Your task to perform on an android device: open app "Skype" Image 0: 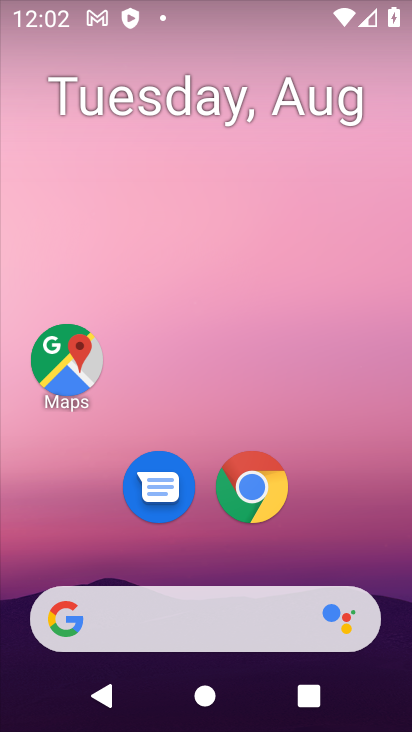
Step 0: drag from (270, 615) to (245, 123)
Your task to perform on an android device: open app "Skype" Image 1: 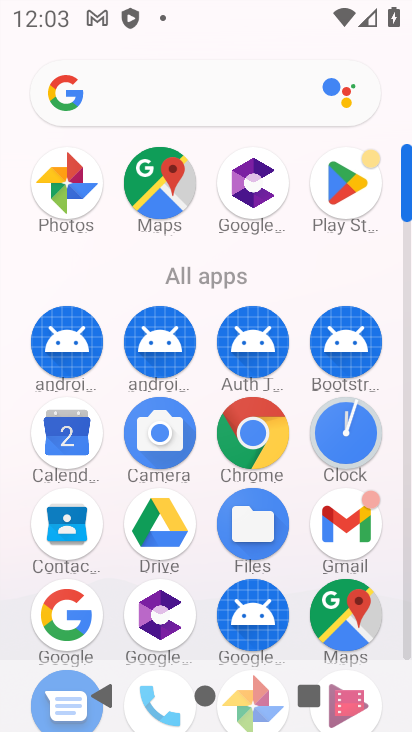
Step 1: click (344, 229)
Your task to perform on an android device: open app "Skype" Image 2: 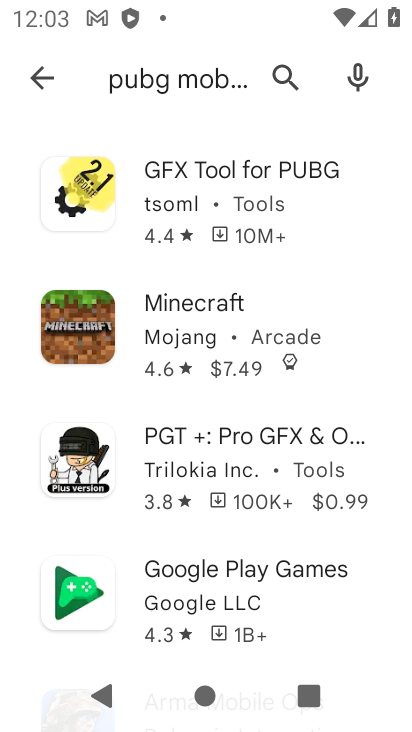
Step 2: click (45, 74)
Your task to perform on an android device: open app "Skype" Image 3: 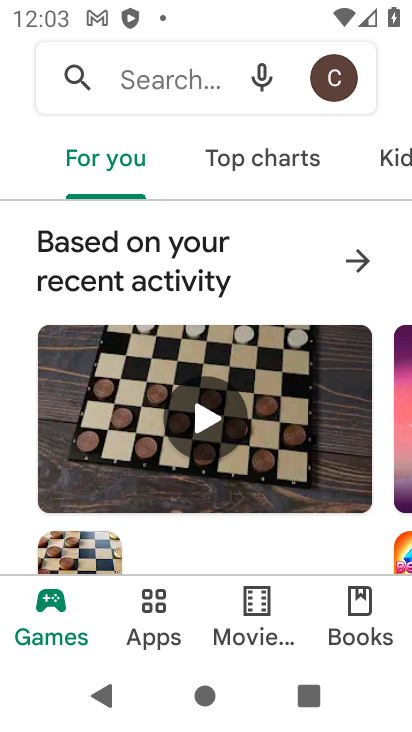
Step 3: click (177, 90)
Your task to perform on an android device: open app "Skype" Image 4: 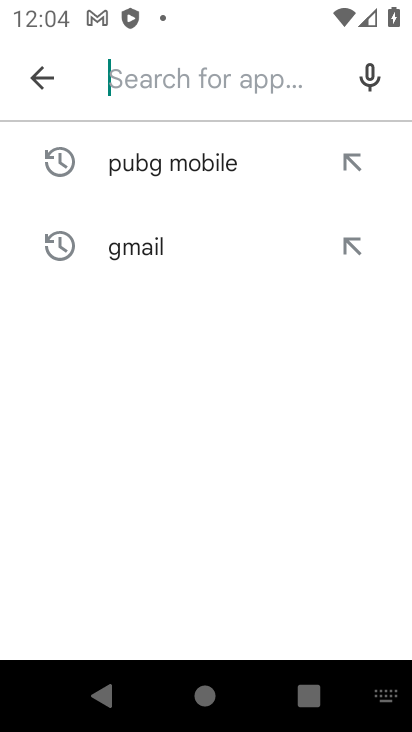
Step 4: type "Skype"
Your task to perform on an android device: open app "Skype" Image 5: 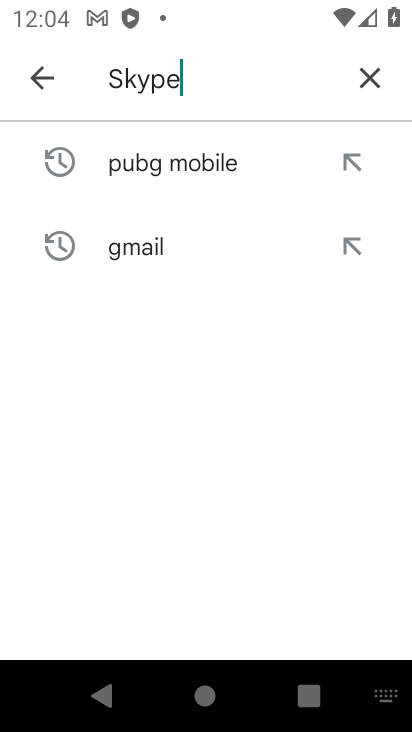
Step 5: type ""
Your task to perform on an android device: open app "Skype" Image 6: 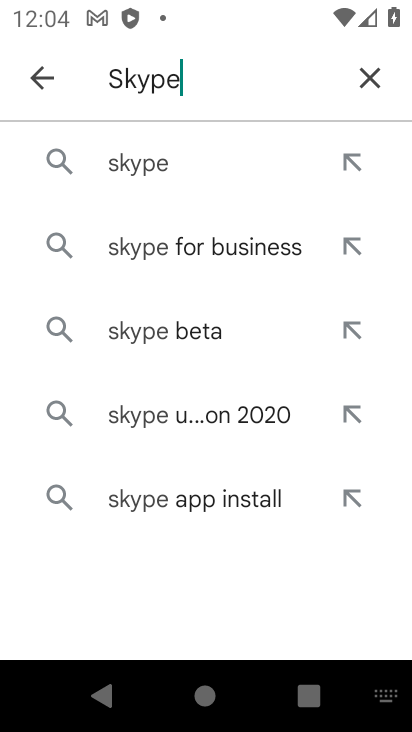
Step 6: click (212, 170)
Your task to perform on an android device: open app "Skype" Image 7: 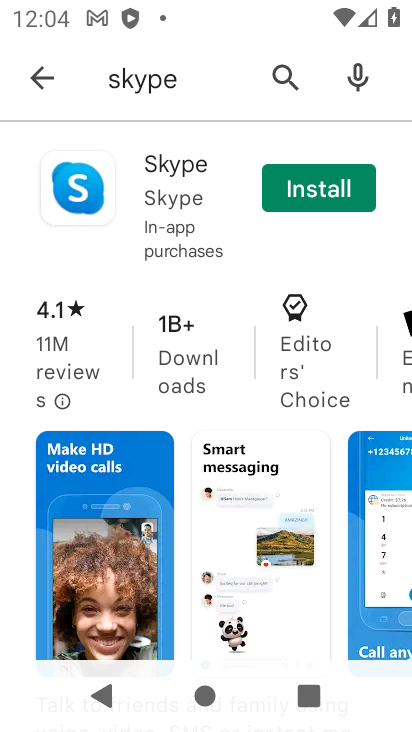
Step 7: task complete